Your task to perform on an android device: Go to sound settings Image 0: 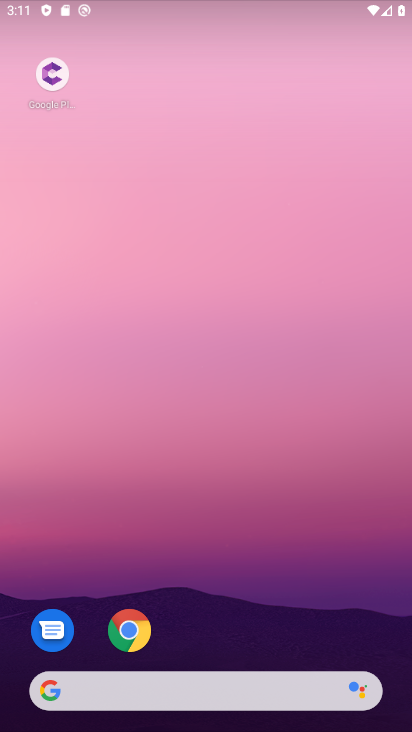
Step 0: press home button
Your task to perform on an android device: Go to sound settings Image 1: 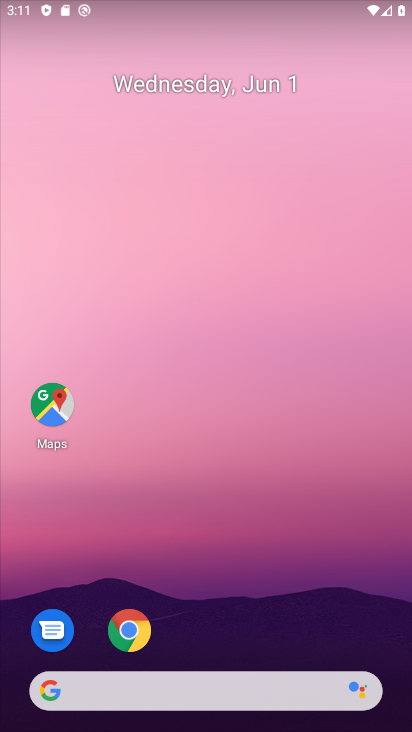
Step 1: drag from (253, 576) to (218, 196)
Your task to perform on an android device: Go to sound settings Image 2: 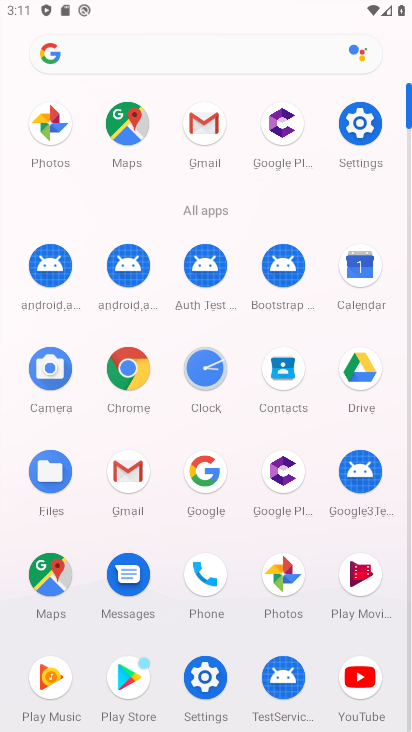
Step 2: click (362, 125)
Your task to perform on an android device: Go to sound settings Image 3: 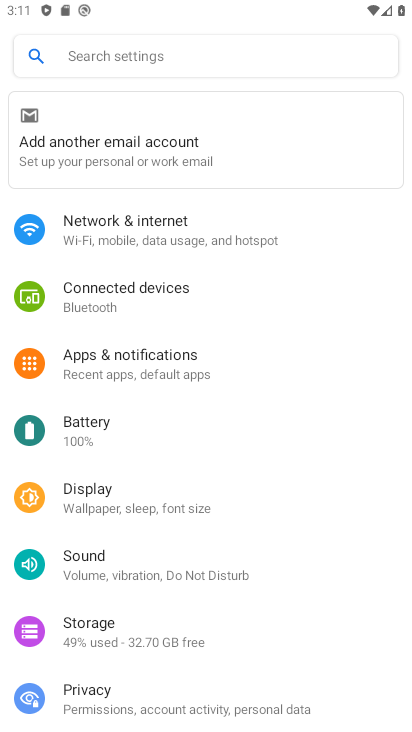
Step 3: click (104, 563)
Your task to perform on an android device: Go to sound settings Image 4: 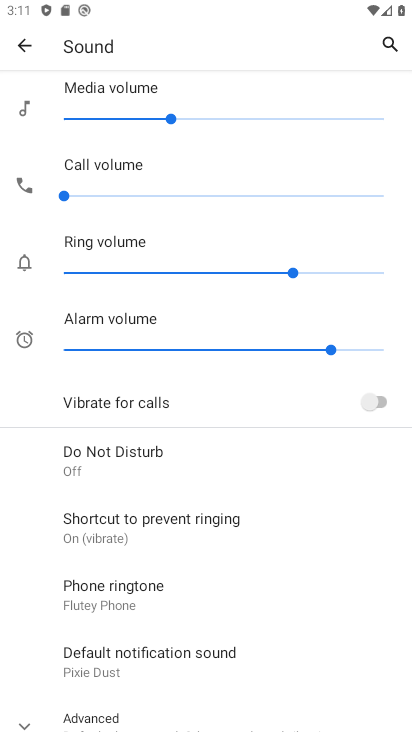
Step 4: task complete